Your task to perform on an android device: turn off sleep mode Image 0: 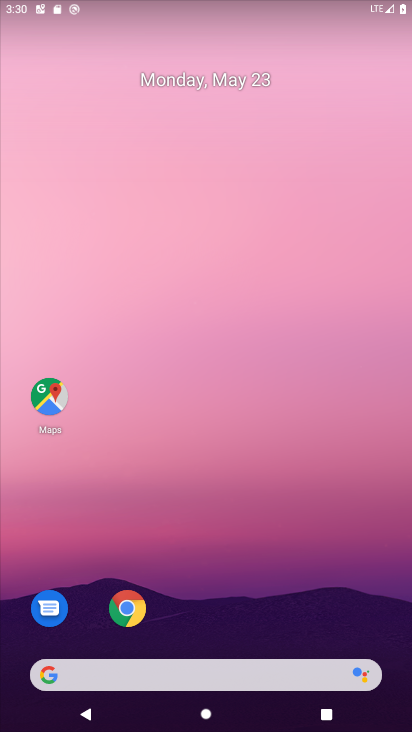
Step 0: drag from (235, 628) to (247, 253)
Your task to perform on an android device: turn off sleep mode Image 1: 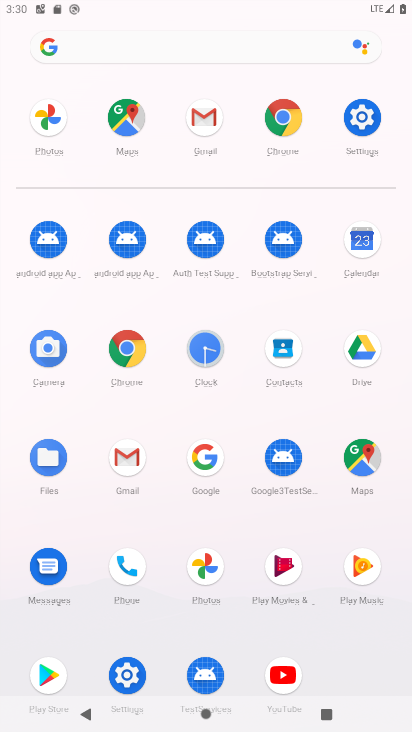
Step 1: click (363, 115)
Your task to perform on an android device: turn off sleep mode Image 2: 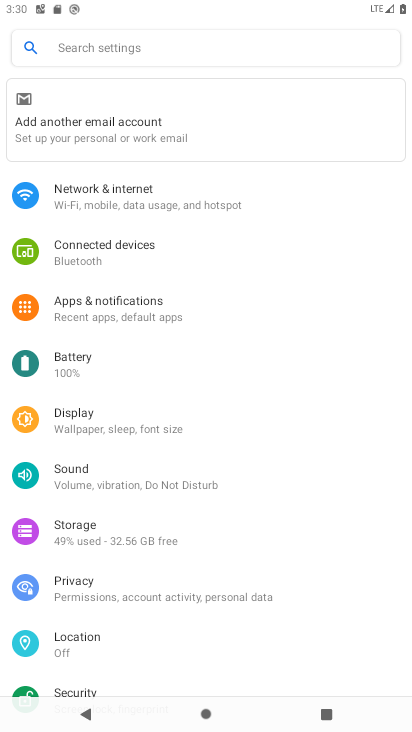
Step 2: click (239, 422)
Your task to perform on an android device: turn off sleep mode Image 3: 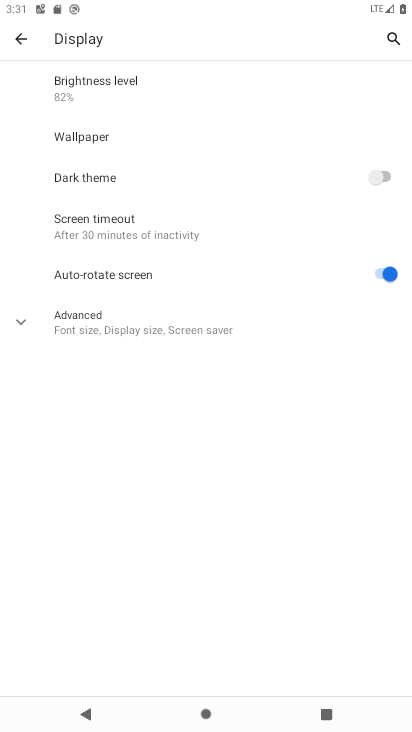
Step 3: click (283, 337)
Your task to perform on an android device: turn off sleep mode Image 4: 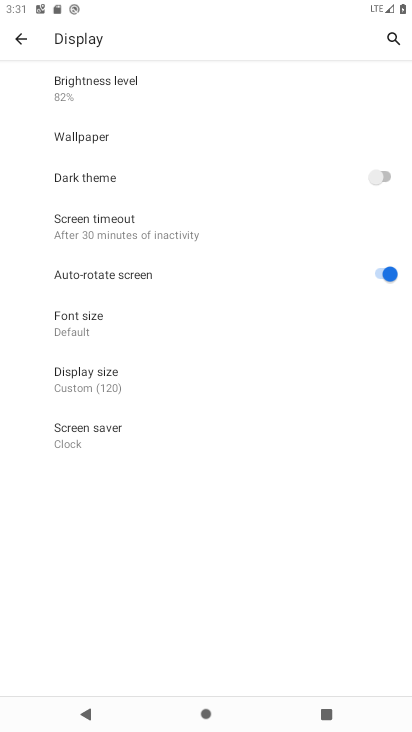
Step 4: task complete